Your task to perform on an android device: Go to eBay Image 0: 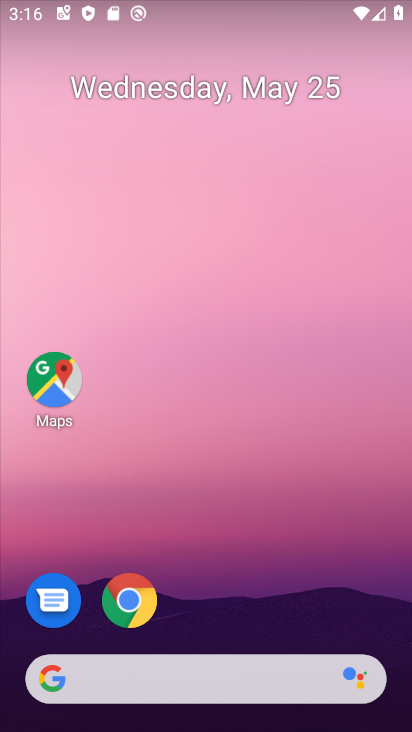
Step 0: click (125, 592)
Your task to perform on an android device: Go to eBay Image 1: 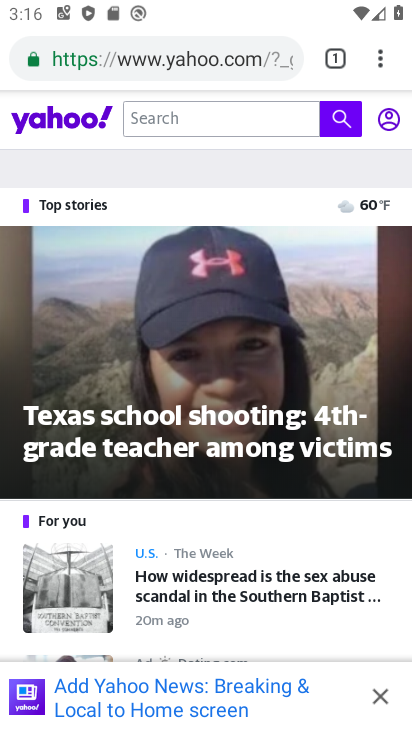
Step 1: click (335, 58)
Your task to perform on an android device: Go to eBay Image 2: 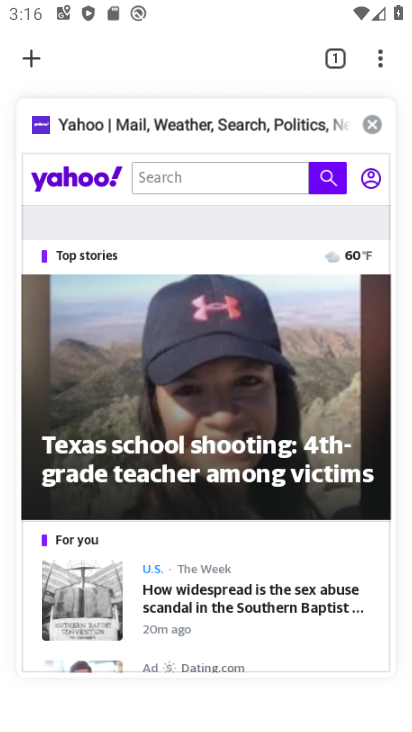
Step 2: click (378, 120)
Your task to perform on an android device: Go to eBay Image 3: 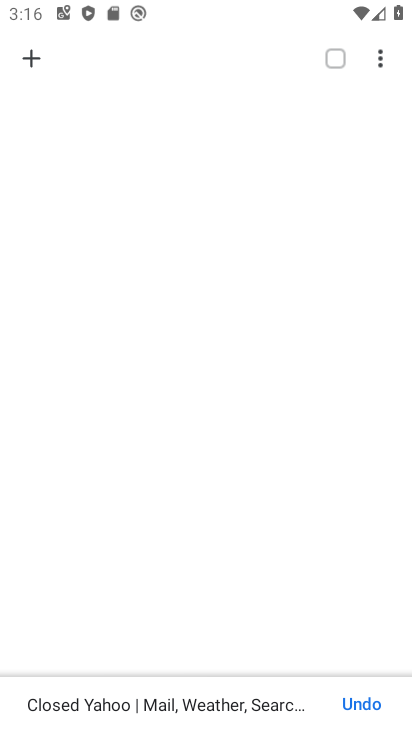
Step 3: click (31, 57)
Your task to perform on an android device: Go to eBay Image 4: 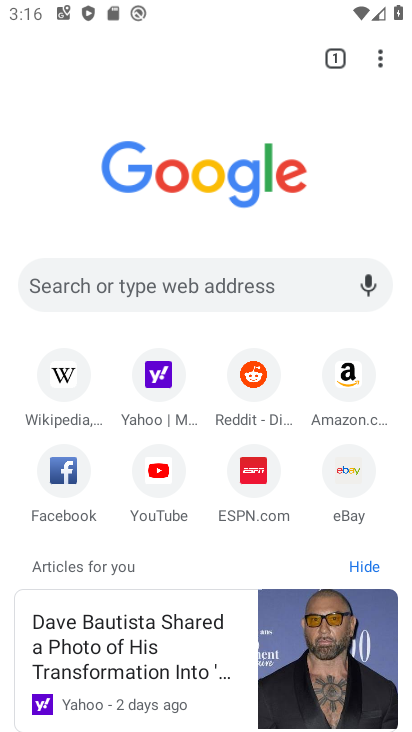
Step 4: click (342, 465)
Your task to perform on an android device: Go to eBay Image 5: 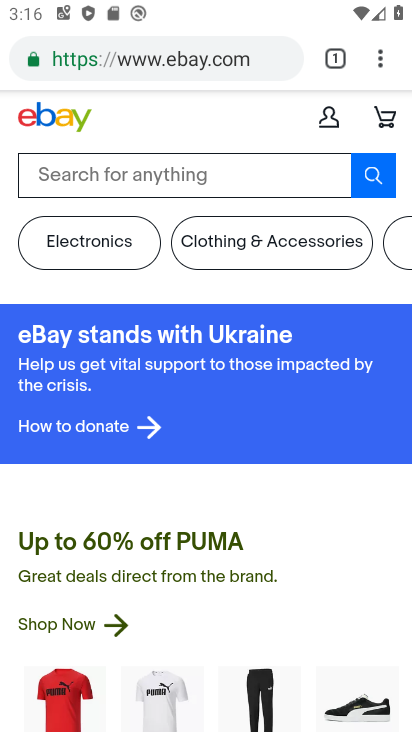
Step 5: task complete